Your task to perform on an android device: toggle notification dots Image 0: 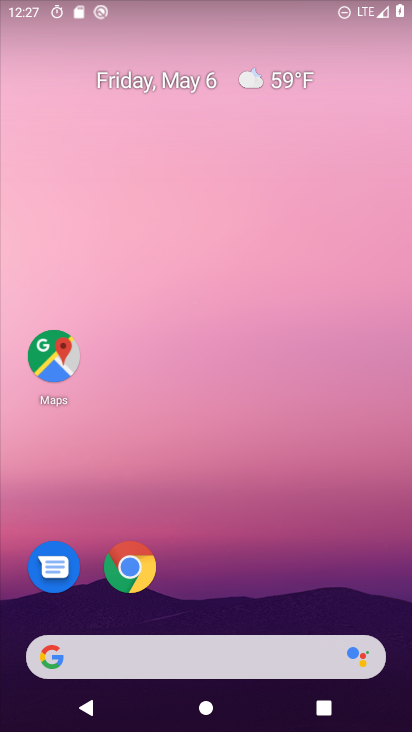
Step 0: drag from (316, 608) to (321, 2)
Your task to perform on an android device: toggle notification dots Image 1: 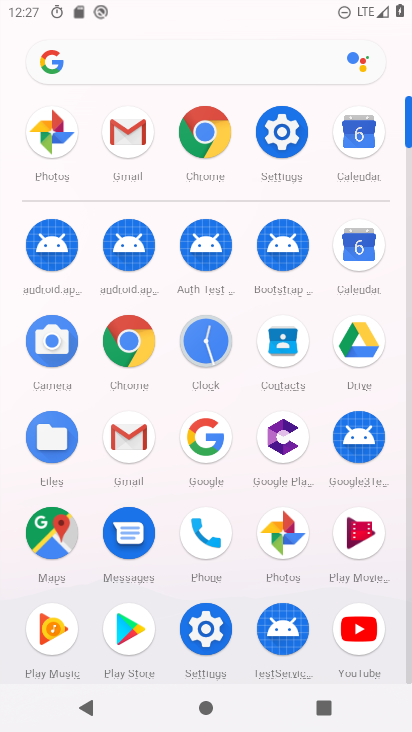
Step 1: click (277, 124)
Your task to perform on an android device: toggle notification dots Image 2: 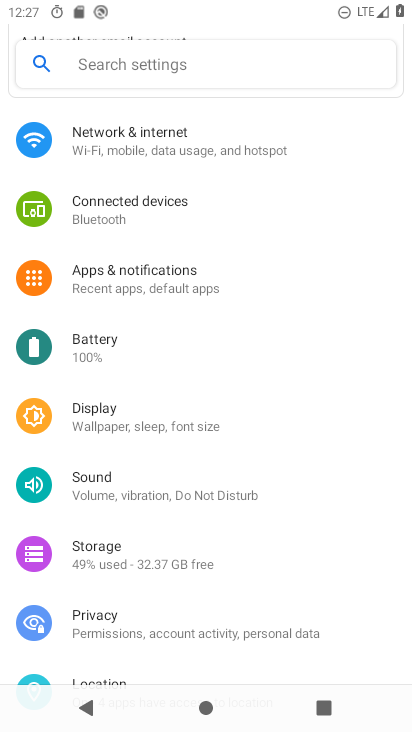
Step 2: click (184, 290)
Your task to perform on an android device: toggle notification dots Image 3: 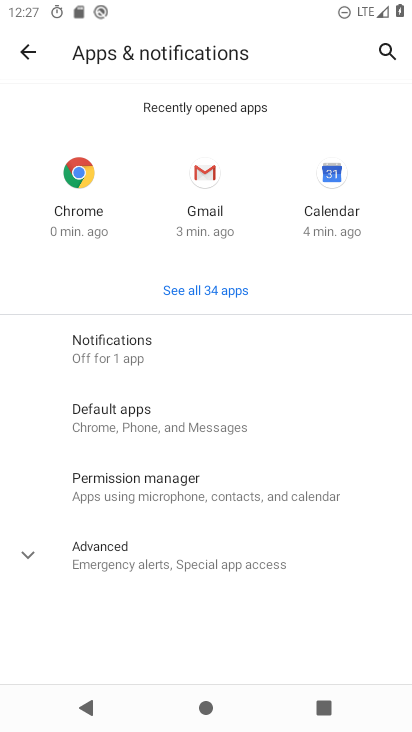
Step 3: click (33, 566)
Your task to perform on an android device: toggle notification dots Image 4: 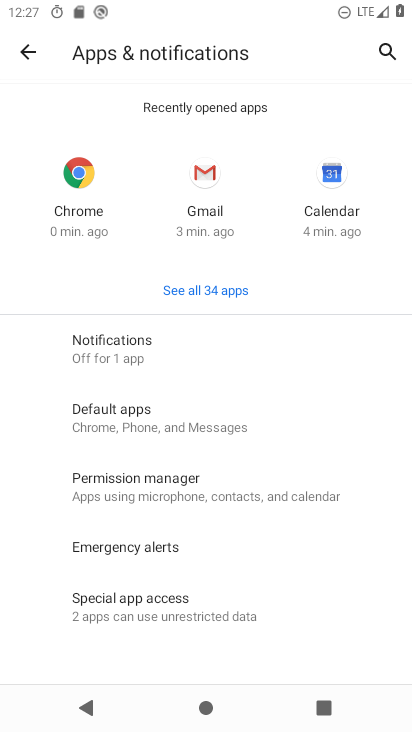
Step 4: drag from (144, 593) to (161, 412)
Your task to perform on an android device: toggle notification dots Image 5: 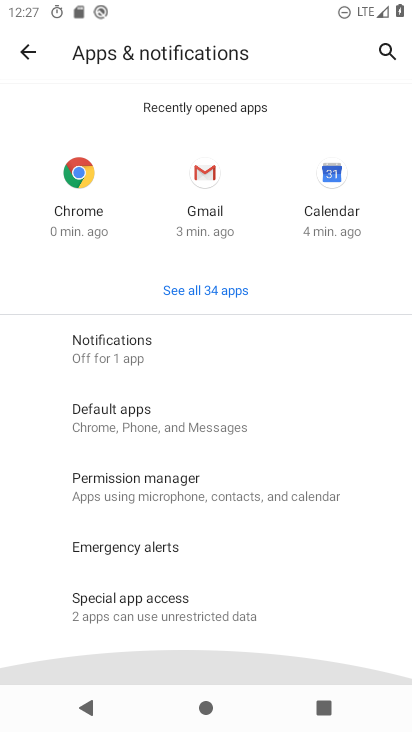
Step 5: click (143, 347)
Your task to perform on an android device: toggle notification dots Image 6: 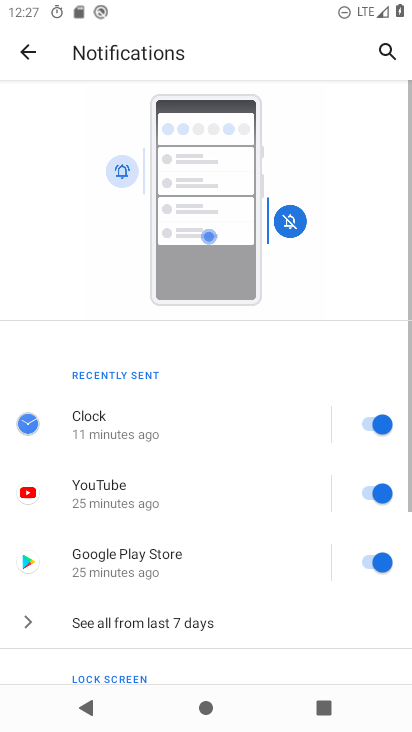
Step 6: drag from (167, 587) to (183, 130)
Your task to perform on an android device: toggle notification dots Image 7: 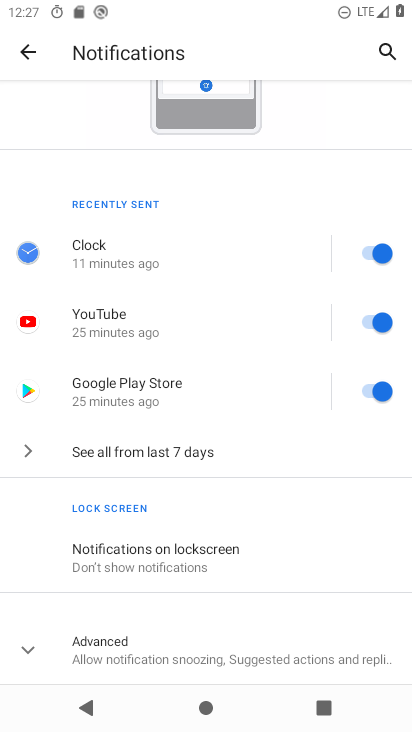
Step 7: click (33, 659)
Your task to perform on an android device: toggle notification dots Image 8: 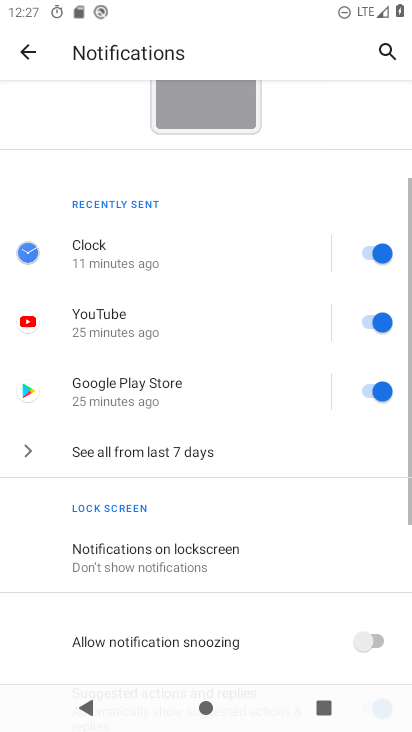
Step 8: drag from (126, 644) to (155, 313)
Your task to perform on an android device: toggle notification dots Image 9: 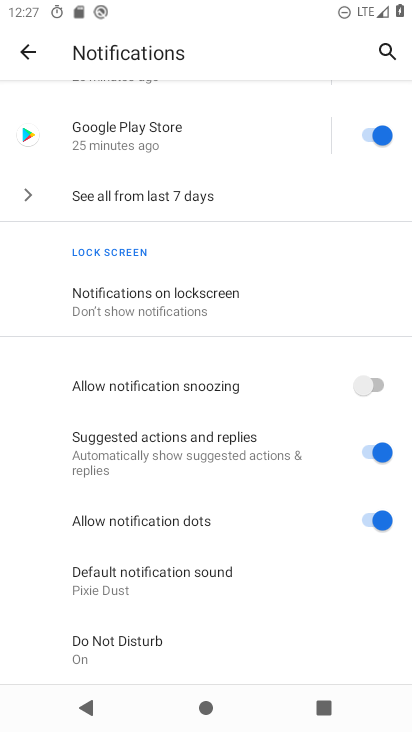
Step 9: click (389, 519)
Your task to perform on an android device: toggle notification dots Image 10: 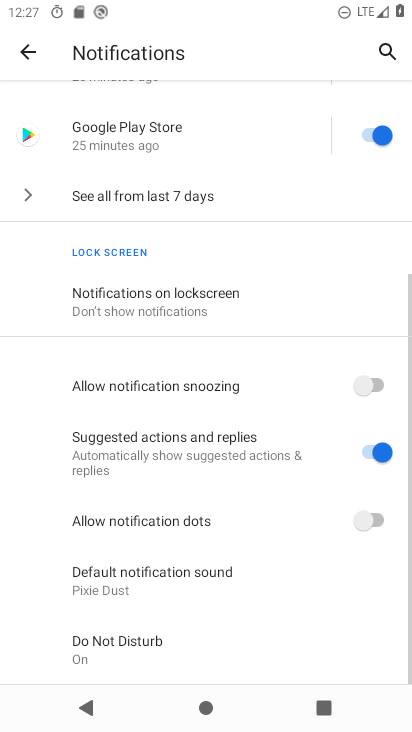
Step 10: task complete